Your task to perform on an android device: open device folders in google photos Image 0: 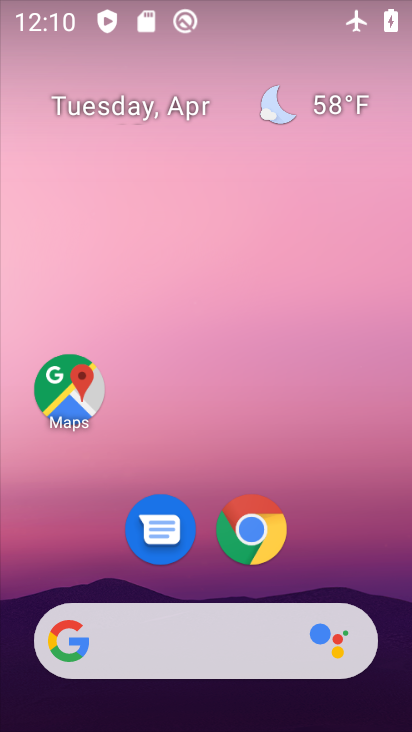
Step 0: drag from (383, 609) to (259, 29)
Your task to perform on an android device: open device folders in google photos Image 1: 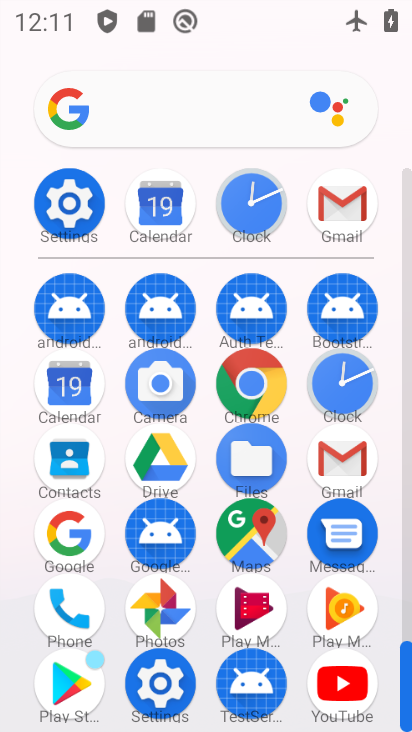
Step 1: click (153, 615)
Your task to perform on an android device: open device folders in google photos Image 2: 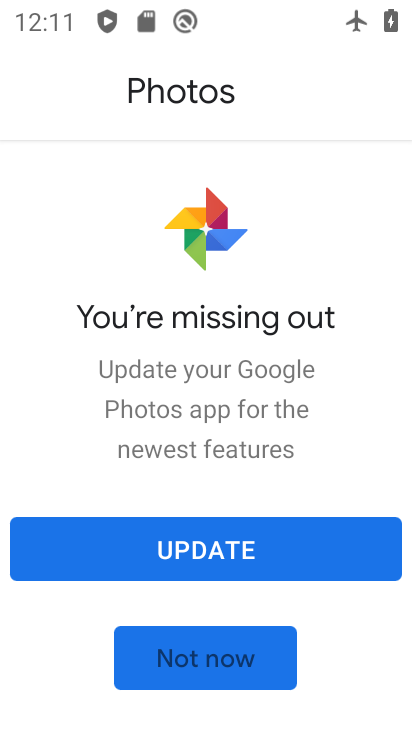
Step 2: click (215, 546)
Your task to perform on an android device: open device folders in google photos Image 3: 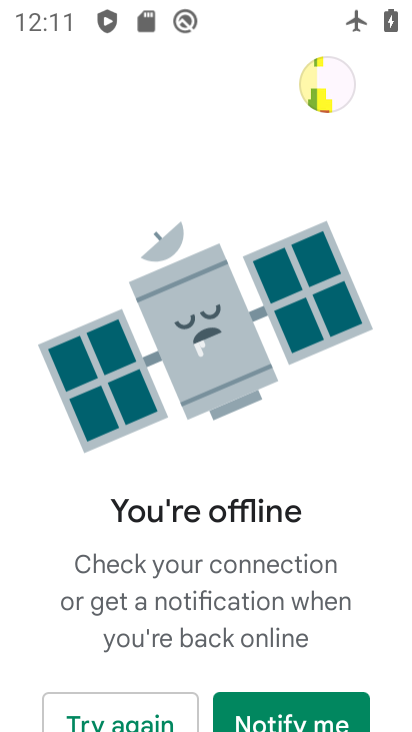
Step 3: task complete